Your task to perform on an android device: Do I have any events this weekend? Image 0: 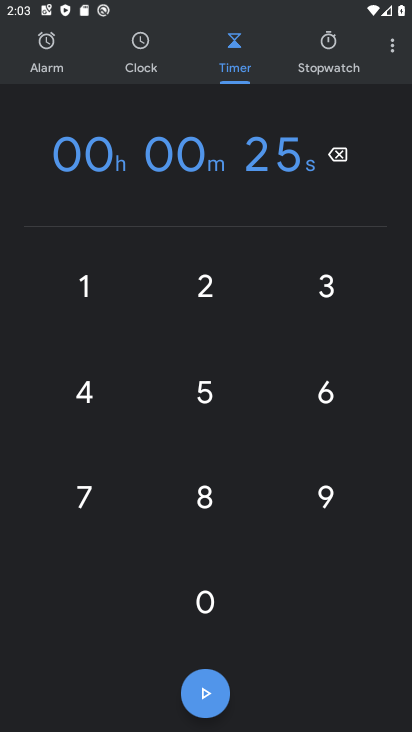
Step 0: press back button
Your task to perform on an android device: Do I have any events this weekend? Image 1: 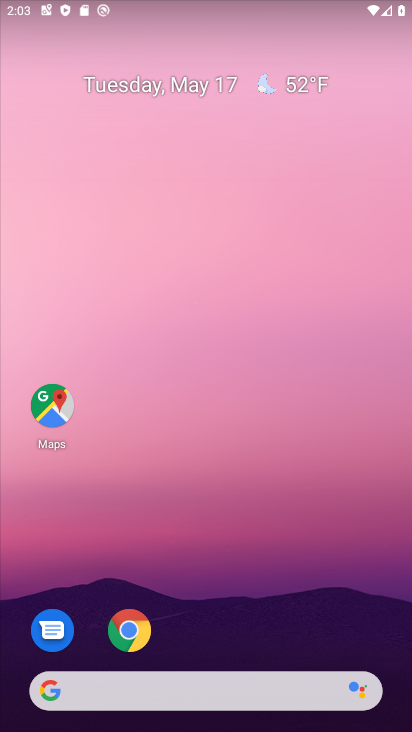
Step 1: drag from (223, 625) to (264, 23)
Your task to perform on an android device: Do I have any events this weekend? Image 2: 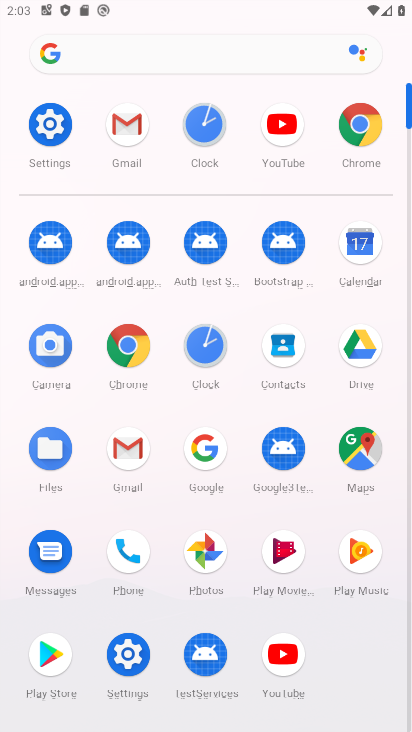
Step 2: click (367, 235)
Your task to perform on an android device: Do I have any events this weekend? Image 3: 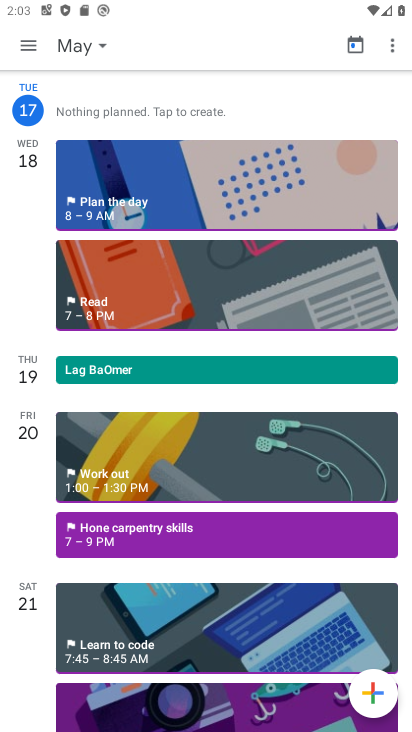
Step 3: drag from (158, 639) to (205, 290)
Your task to perform on an android device: Do I have any events this weekend? Image 4: 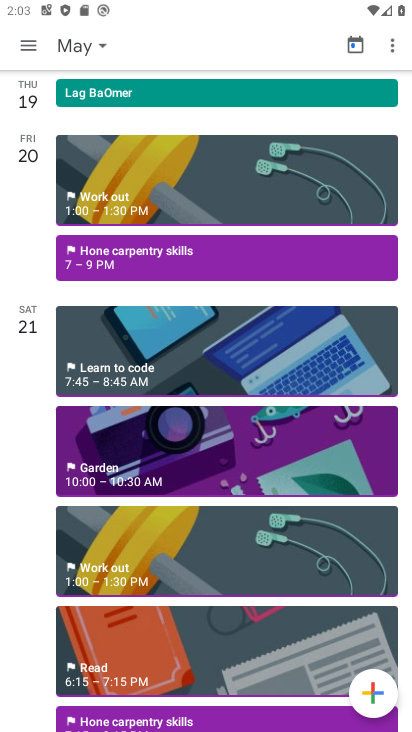
Step 4: click (148, 466)
Your task to perform on an android device: Do I have any events this weekend? Image 5: 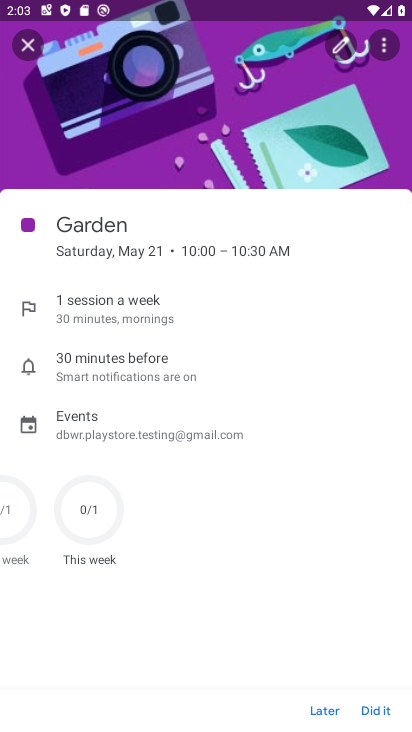
Step 5: task complete